Your task to perform on an android device: change the clock display to digital Image 0: 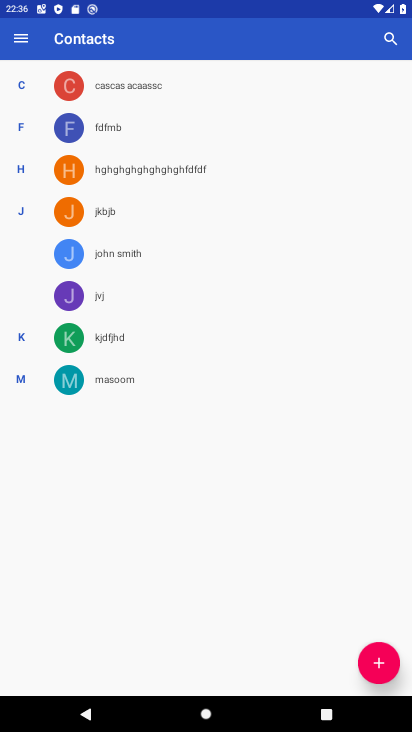
Step 0: press home button
Your task to perform on an android device: change the clock display to digital Image 1: 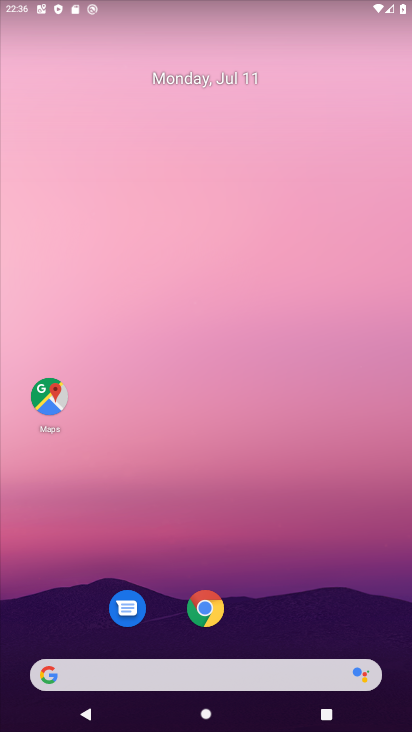
Step 1: drag from (32, 693) to (204, 3)
Your task to perform on an android device: change the clock display to digital Image 2: 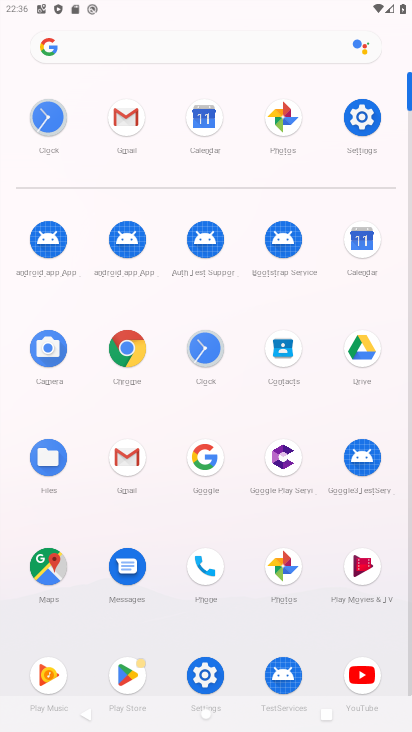
Step 2: click (214, 342)
Your task to perform on an android device: change the clock display to digital Image 3: 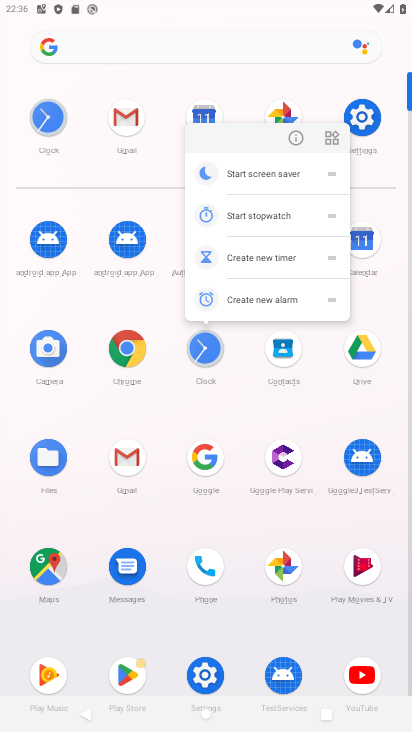
Step 3: click (207, 357)
Your task to perform on an android device: change the clock display to digital Image 4: 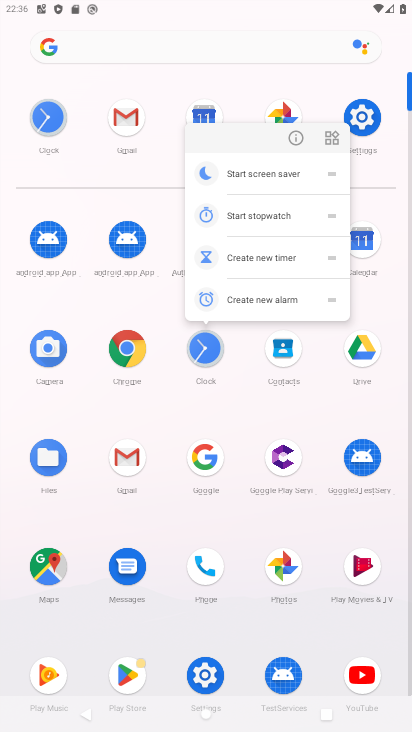
Step 4: click (204, 355)
Your task to perform on an android device: change the clock display to digital Image 5: 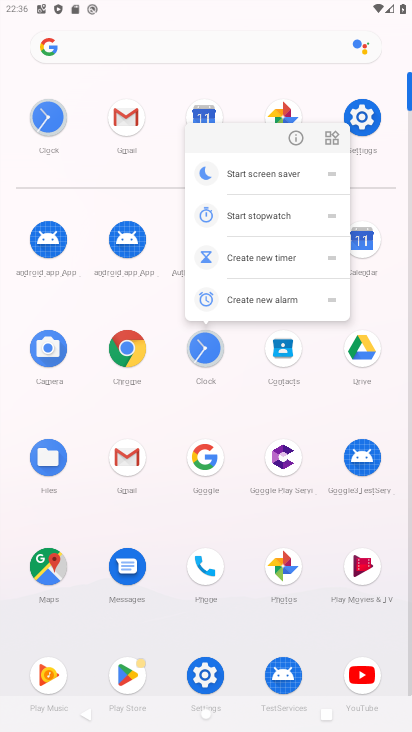
Step 5: click (200, 340)
Your task to perform on an android device: change the clock display to digital Image 6: 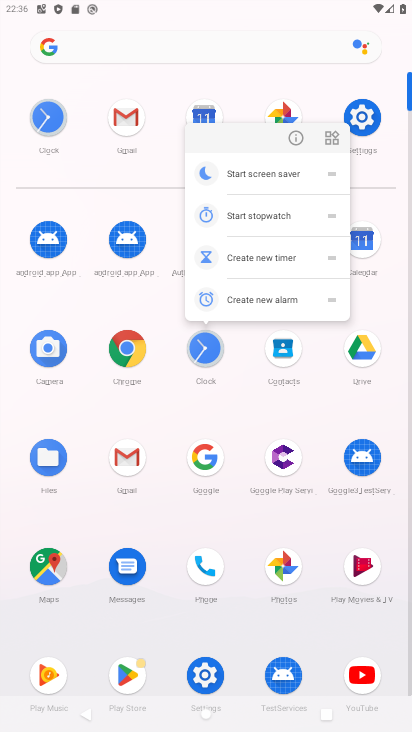
Step 6: click (207, 352)
Your task to perform on an android device: change the clock display to digital Image 7: 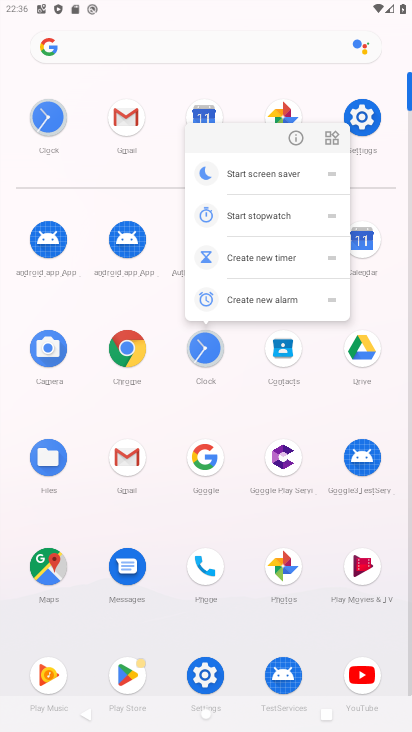
Step 7: click (203, 359)
Your task to perform on an android device: change the clock display to digital Image 8: 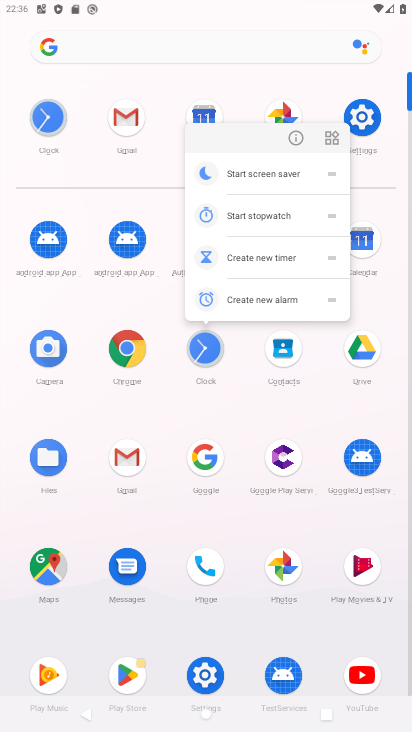
Step 8: click (203, 359)
Your task to perform on an android device: change the clock display to digital Image 9: 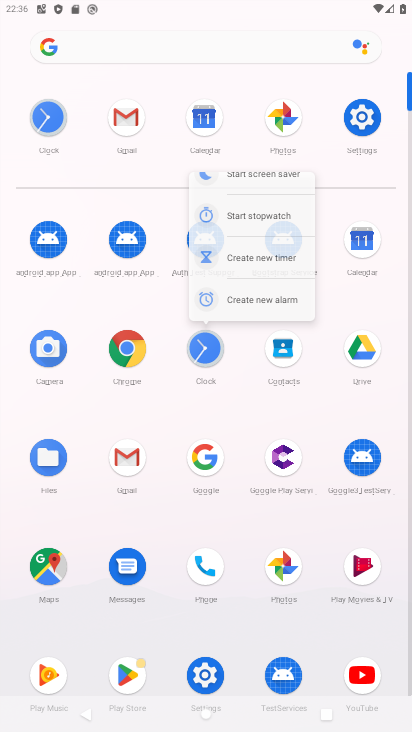
Step 9: click (203, 359)
Your task to perform on an android device: change the clock display to digital Image 10: 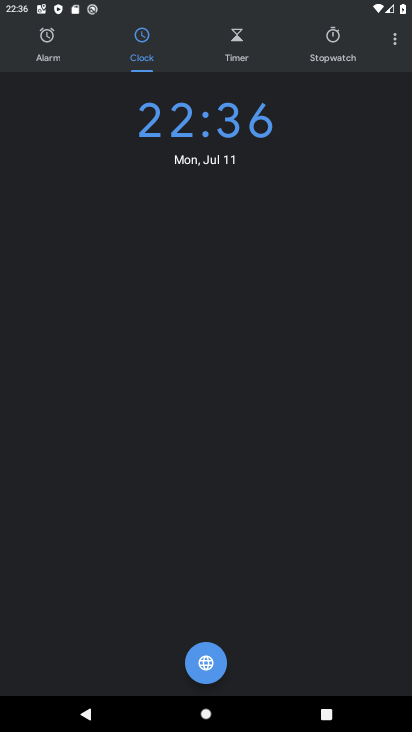
Step 10: click (397, 39)
Your task to perform on an android device: change the clock display to digital Image 11: 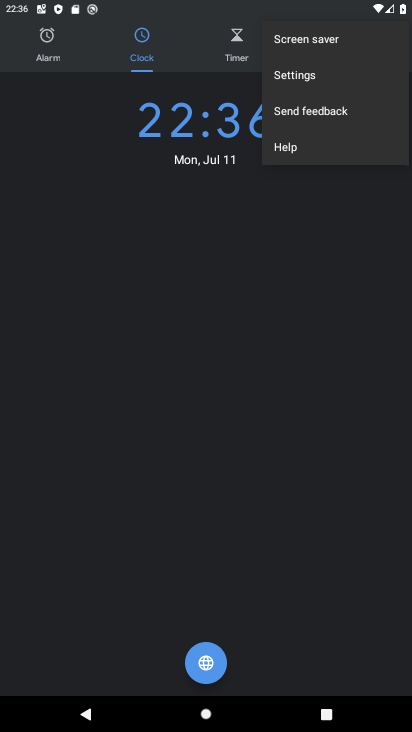
Step 11: click (300, 79)
Your task to perform on an android device: change the clock display to digital Image 12: 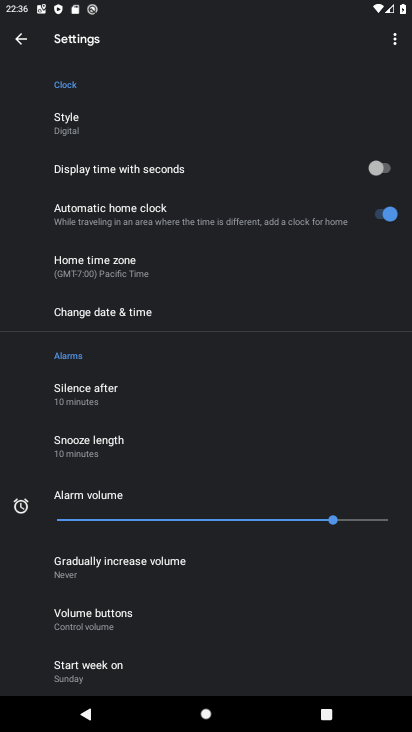
Step 12: task complete